Your task to perform on an android device: all mails in gmail Image 0: 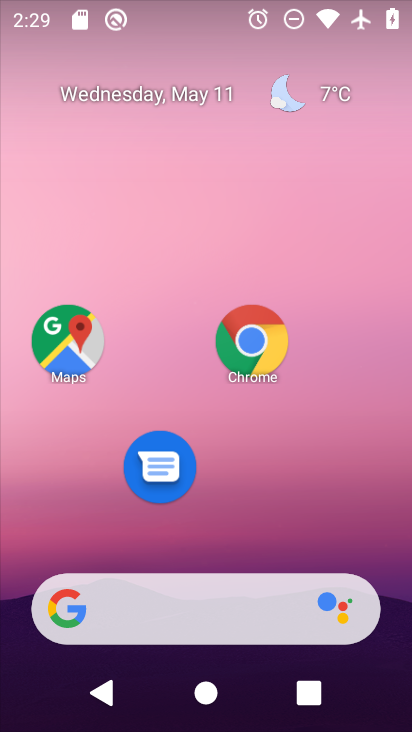
Step 0: drag from (194, 608) to (302, 180)
Your task to perform on an android device: all mails in gmail Image 1: 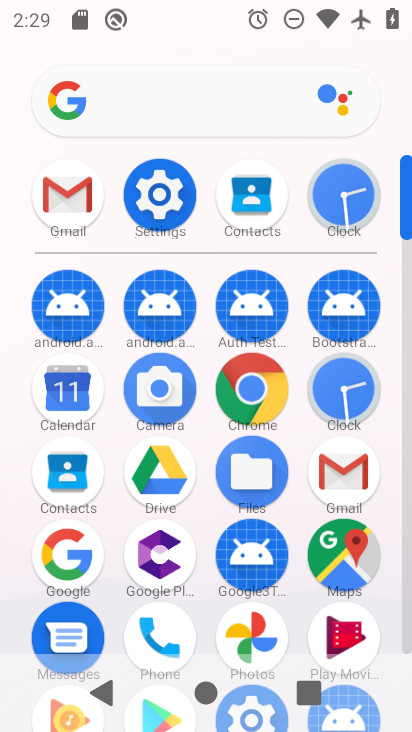
Step 1: click (79, 210)
Your task to perform on an android device: all mails in gmail Image 2: 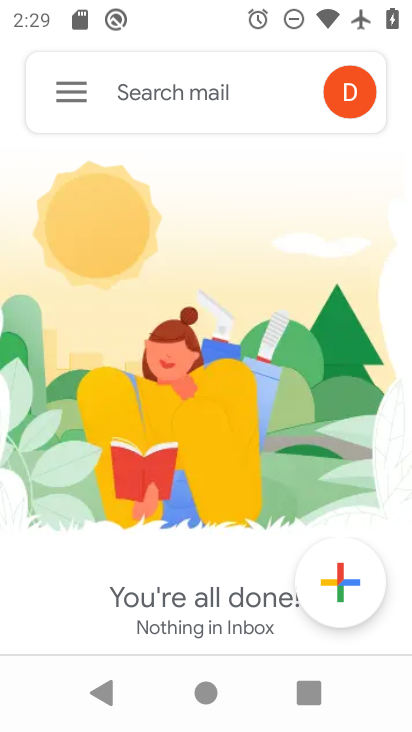
Step 2: click (72, 94)
Your task to perform on an android device: all mails in gmail Image 3: 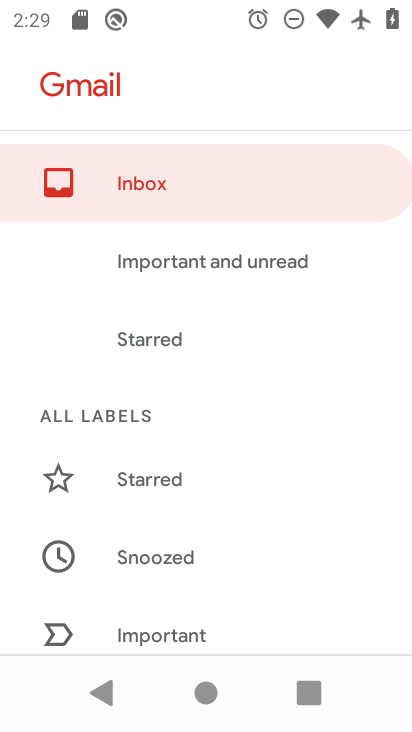
Step 3: drag from (250, 618) to (364, 218)
Your task to perform on an android device: all mails in gmail Image 4: 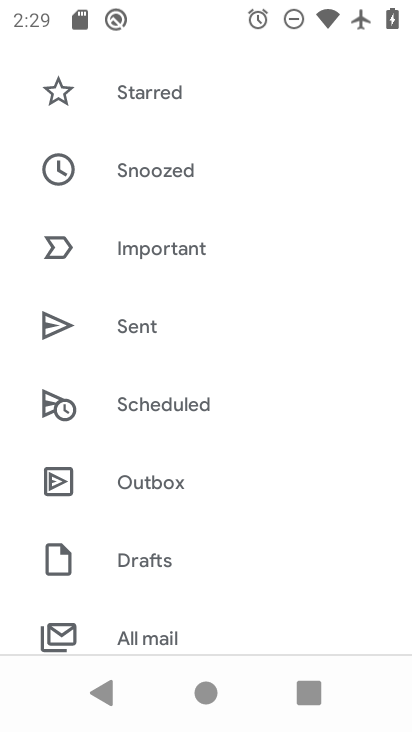
Step 4: click (165, 642)
Your task to perform on an android device: all mails in gmail Image 5: 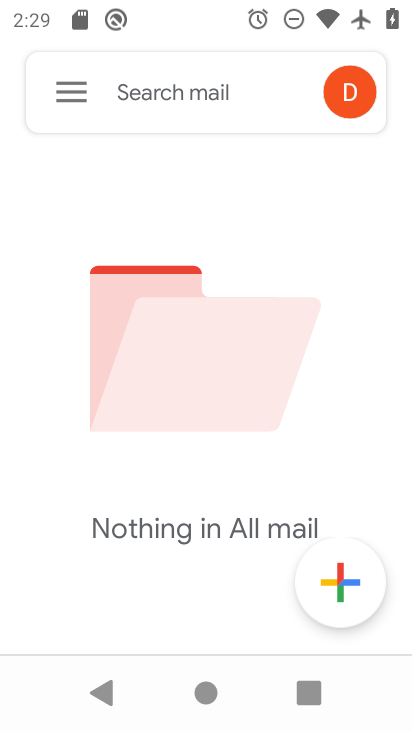
Step 5: task complete